Your task to perform on an android device: search for starred emails in the gmail app Image 0: 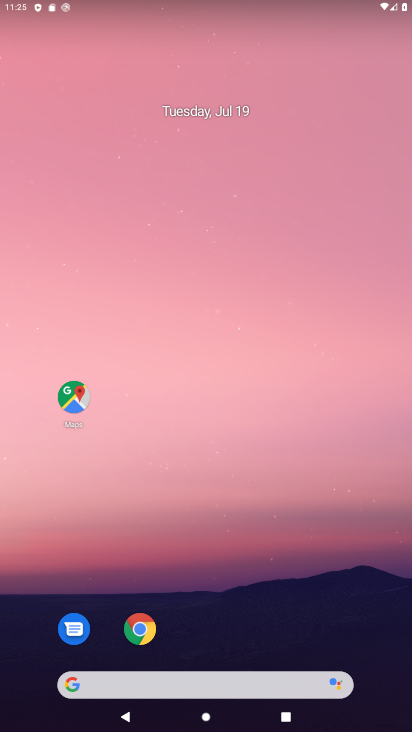
Step 0: drag from (261, 647) to (303, 99)
Your task to perform on an android device: search for starred emails in the gmail app Image 1: 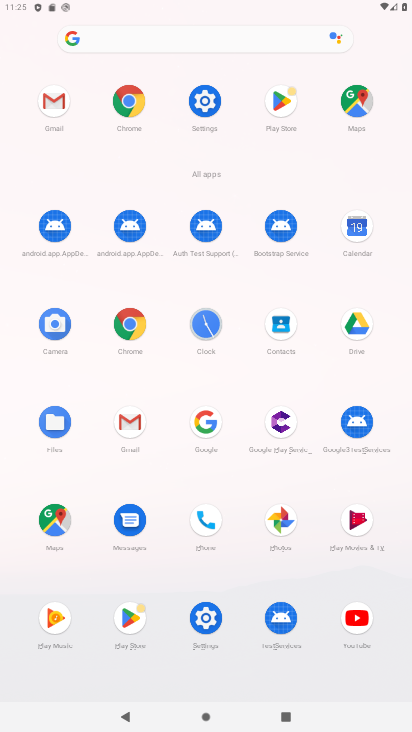
Step 1: click (47, 97)
Your task to perform on an android device: search for starred emails in the gmail app Image 2: 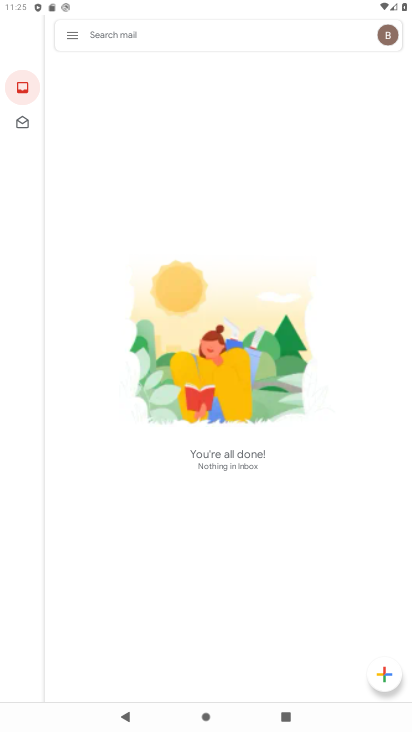
Step 2: click (74, 34)
Your task to perform on an android device: search for starred emails in the gmail app Image 3: 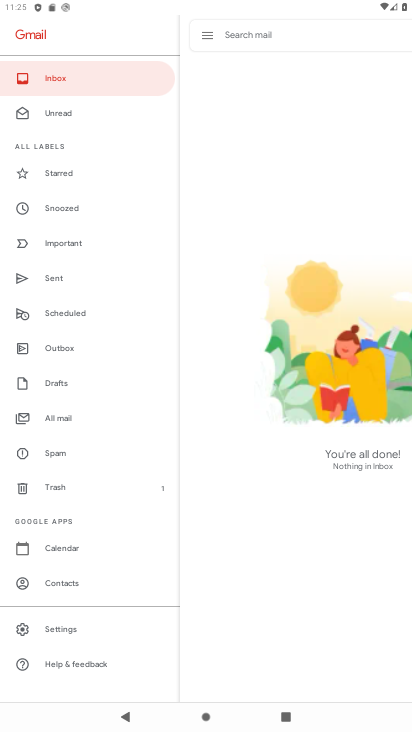
Step 3: click (68, 177)
Your task to perform on an android device: search for starred emails in the gmail app Image 4: 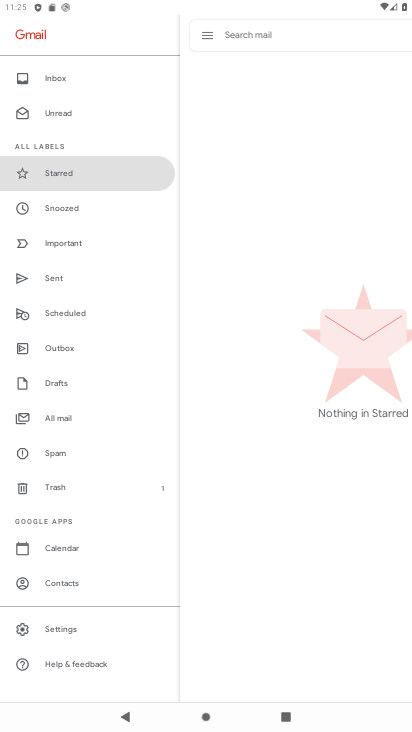
Step 4: task complete